Your task to perform on an android device: Open ESPN.com Image 0: 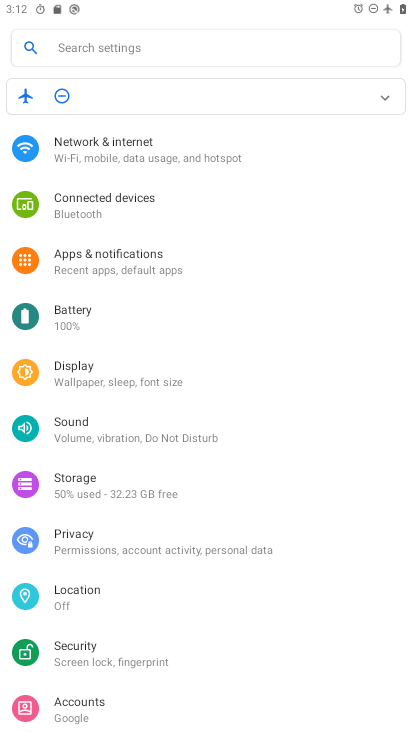
Step 0: click (68, 42)
Your task to perform on an android device: Open ESPN.com Image 1: 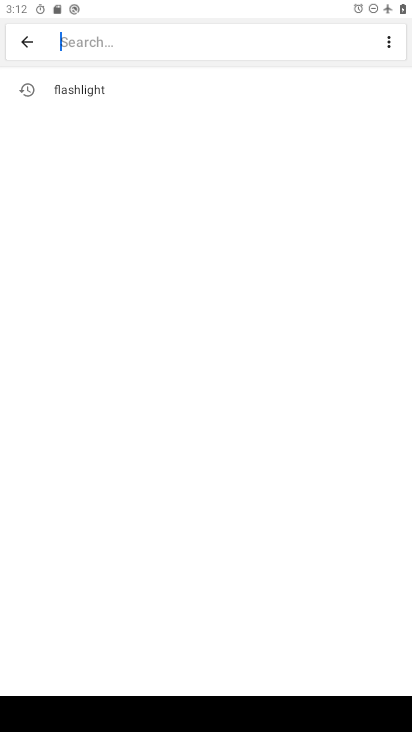
Step 1: type "ESPN.com"
Your task to perform on an android device: Open ESPN.com Image 2: 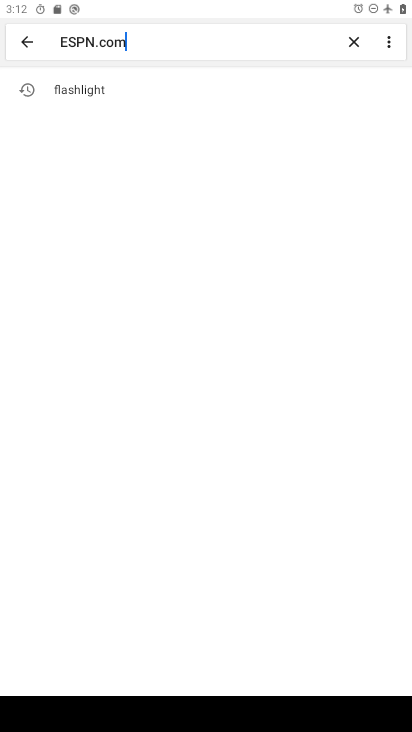
Step 2: type ""
Your task to perform on an android device: Open ESPN.com Image 3: 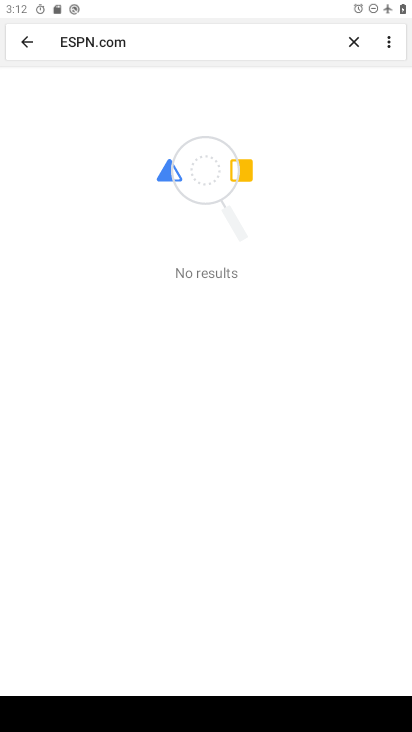
Step 3: drag from (230, 153) to (239, 402)
Your task to perform on an android device: Open ESPN.com Image 4: 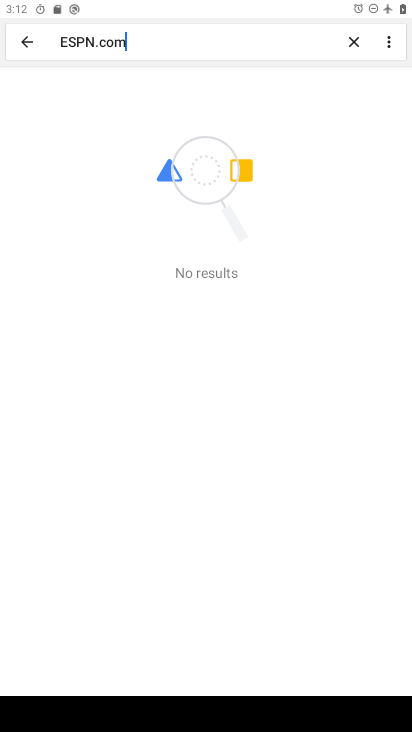
Step 4: drag from (179, 627) to (220, 337)
Your task to perform on an android device: Open ESPN.com Image 5: 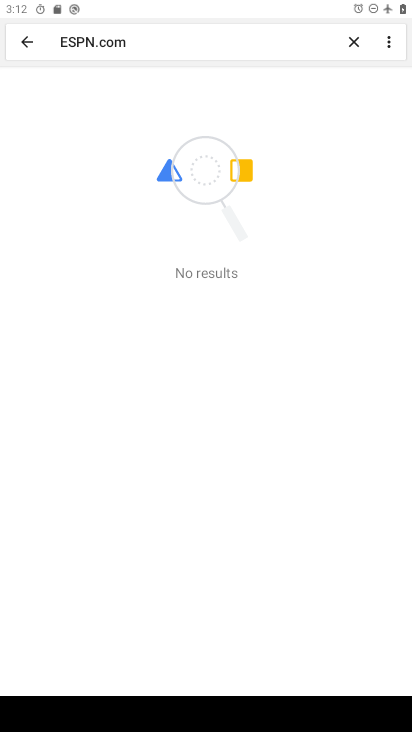
Step 5: click (258, 285)
Your task to perform on an android device: Open ESPN.com Image 6: 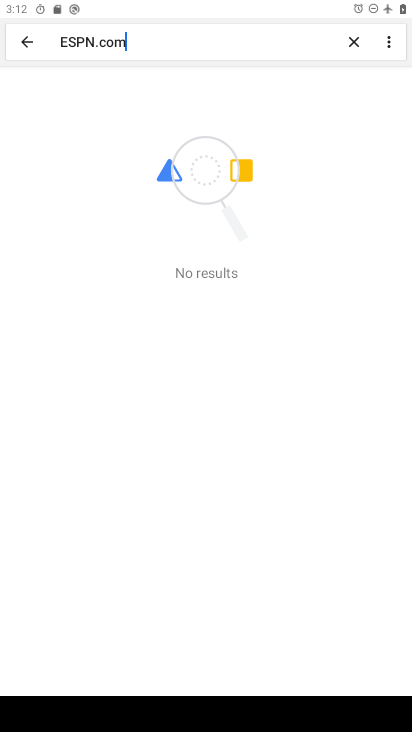
Step 6: task complete